Your task to perform on an android device: Open Google Chrome Image 0: 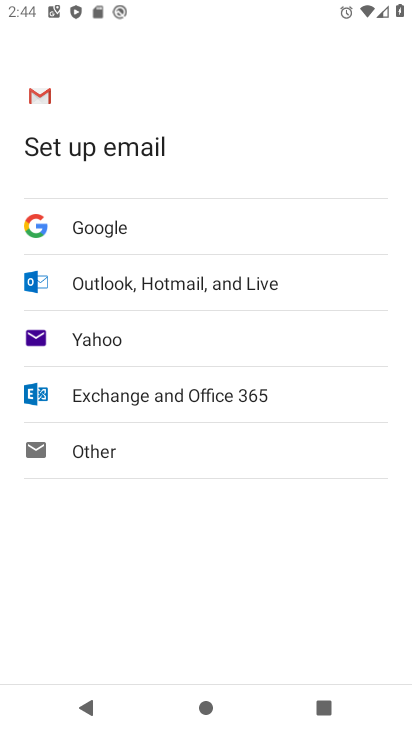
Step 0: press home button
Your task to perform on an android device: Open Google Chrome Image 1: 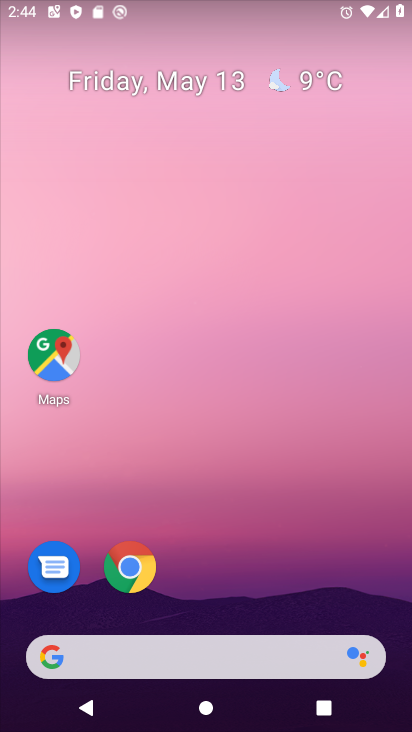
Step 1: drag from (199, 467) to (292, 7)
Your task to perform on an android device: Open Google Chrome Image 2: 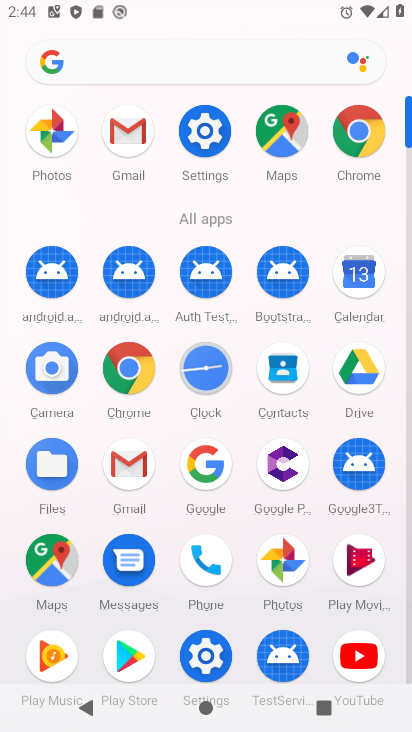
Step 2: click (126, 379)
Your task to perform on an android device: Open Google Chrome Image 3: 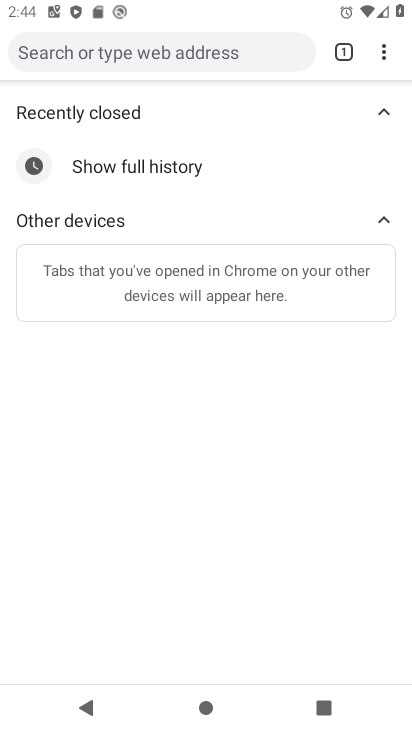
Step 3: task complete